Your task to perform on an android device: Look up the best rated drill on Lowes. Image 0: 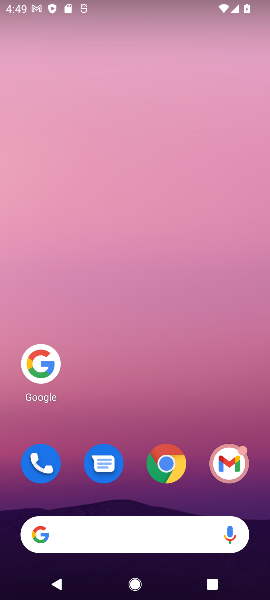
Step 0: click (39, 359)
Your task to perform on an android device: Look up the best rated drill on Lowes. Image 1: 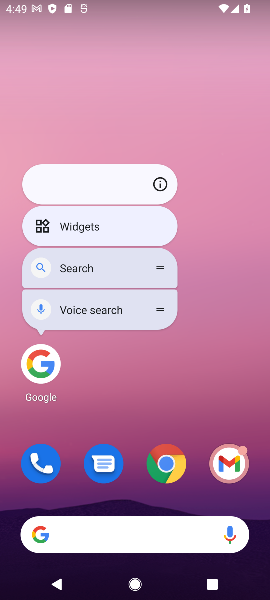
Step 1: click (26, 360)
Your task to perform on an android device: Look up the best rated drill on Lowes. Image 2: 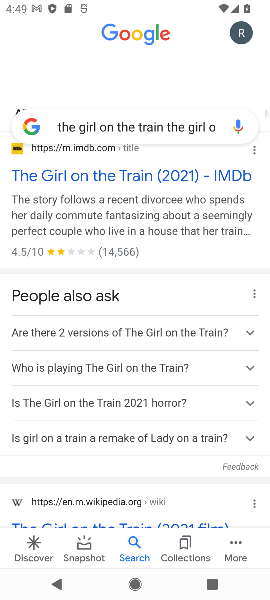
Step 2: click (169, 123)
Your task to perform on an android device: Look up the best rated drill on Lowes. Image 3: 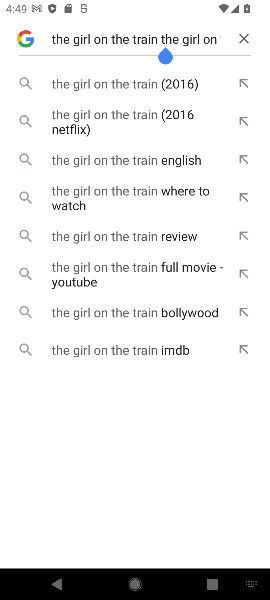
Step 3: click (240, 38)
Your task to perform on an android device: Look up the best rated drill on Lowes. Image 4: 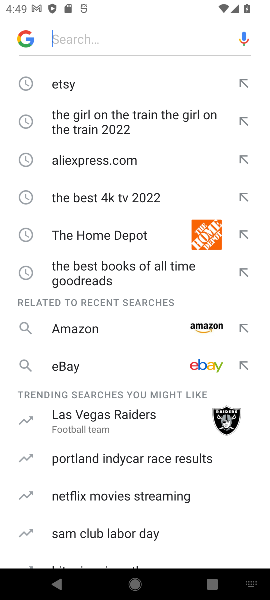
Step 4: click (125, 35)
Your task to perform on an android device: Look up the best rated drill on Lowes. Image 5: 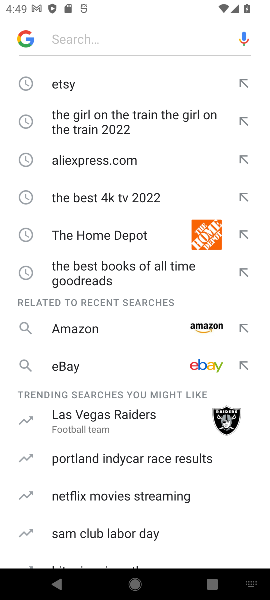
Step 5: type " the best rated drill on Lowes "
Your task to perform on an android device: Look up the best rated drill on Lowes. Image 6: 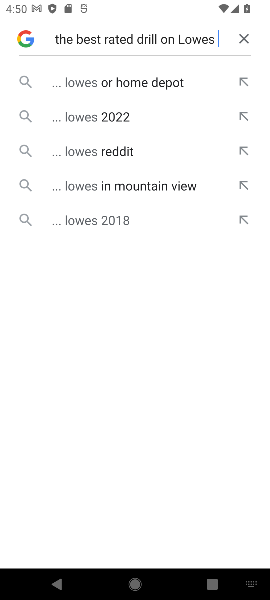
Step 6: click (140, 76)
Your task to perform on an android device: Look up the best rated drill on Lowes. Image 7: 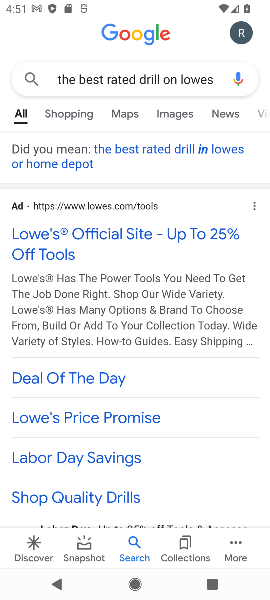
Step 7: click (198, 225)
Your task to perform on an android device: Look up the best rated drill on Lowes. Image 8: 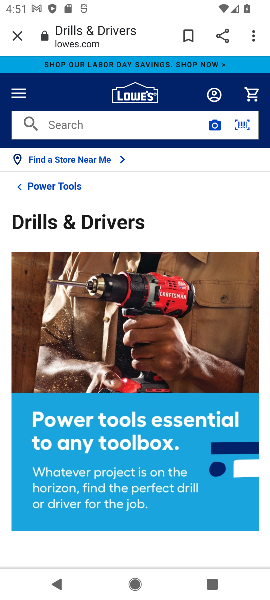
Step 8: task complete